Your task to perform on an android device: Is it going to rain today? Image 0: 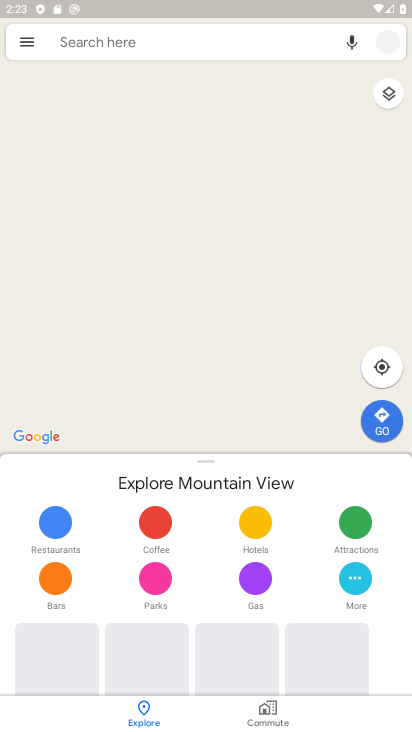
Step 0: press home button
Your task to perform on an android device: Is it going to rain today? Image 1: 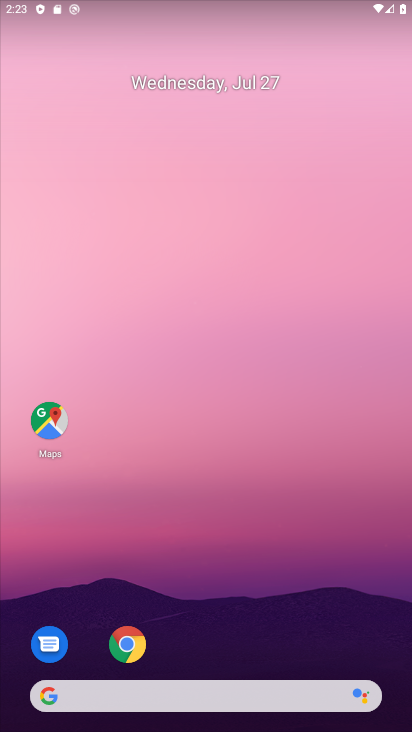
Step 1: click (222, 689)
Your task to perform on an android device: Is it going to rain today? Image 2: 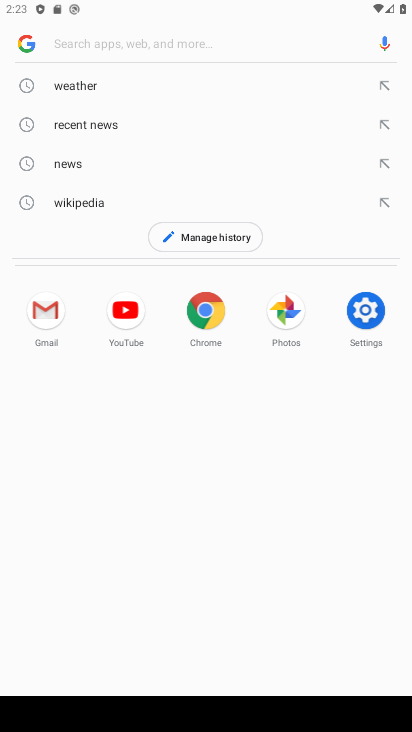
Step 2: click (80, 87)
Your task to perform on an android device: Is it going to rain today? Image 3: 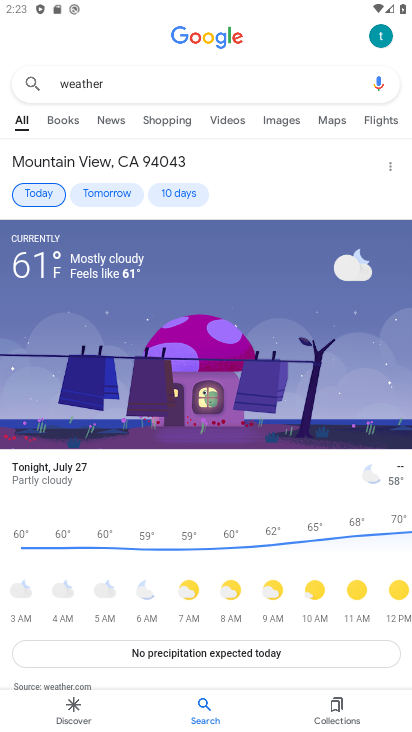
Step 3: task complete